Your task to perform on an android device: check battery use Image 0: 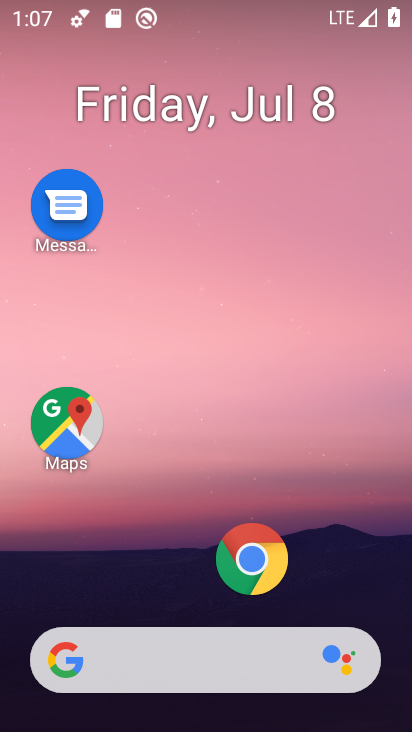
Step 0: drag from (149, 584) to (75, 40)
Your task to perform on an android device: check battery use Image 1: 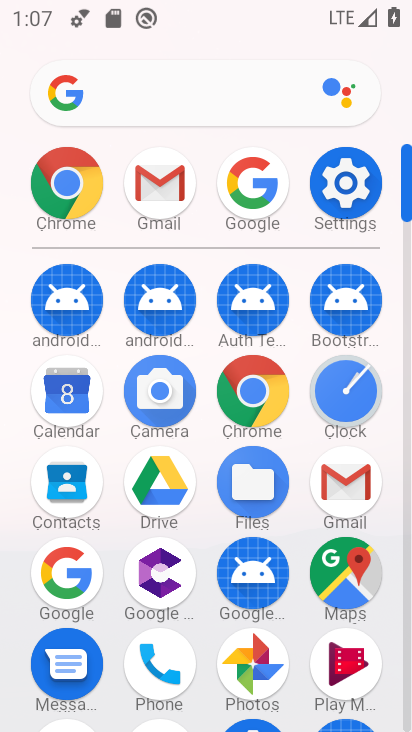
Step 1: click (349, 188)
Your task to perform on an android device: check battery use Image 2: 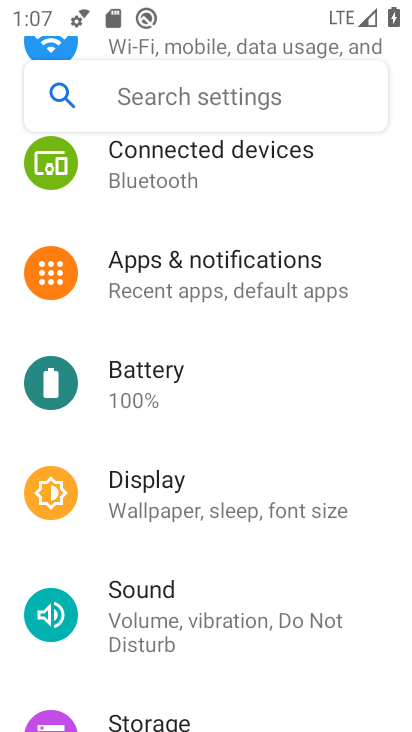
Step 2: click (162, 403)
Your task to perform on an android device: check battery use Image 3: 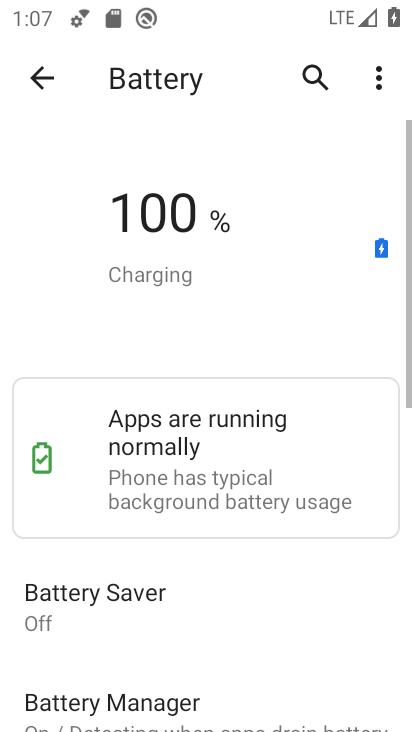
Step 3: task complete